Your task to perform on an android device: Open Google Chrome and click the shortcut for Amazon.com Image 0: 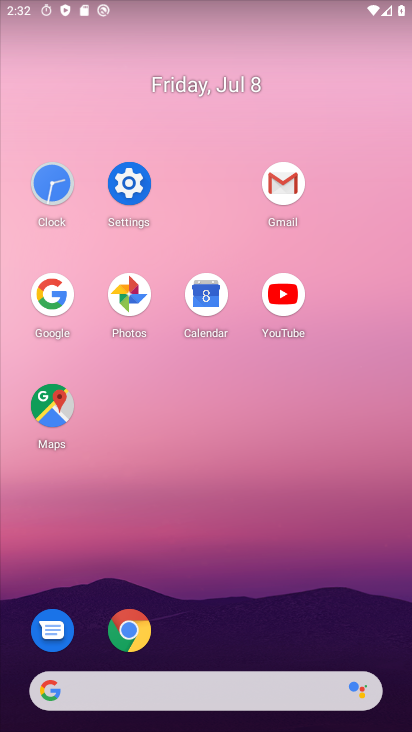
Step 0: click (117, 626)
Your task to perform on an android device: Open Google Chrome and click the shortcut for Amazon.com Image 1: 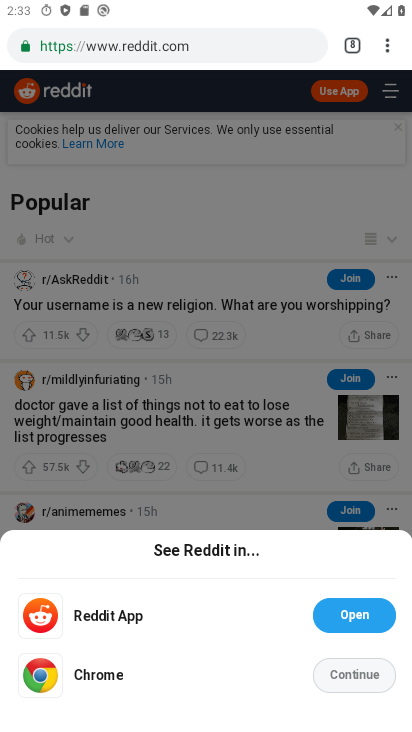
Step 1: click (352, 36)
Your task to perform on an android device: Open Google Chrome and click the shortcut for Amazon.com Image 2: 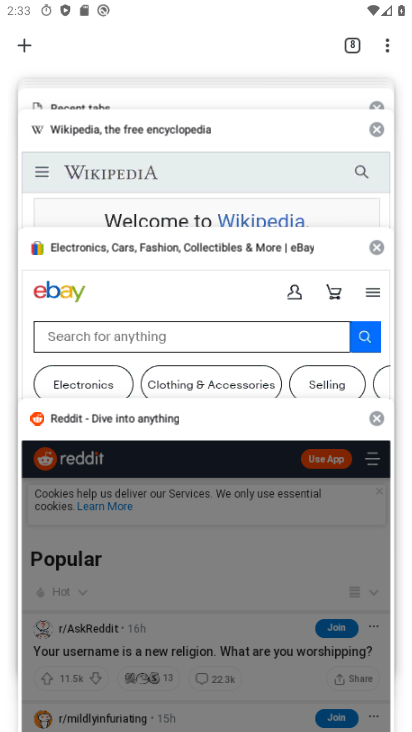
Step 2: drag from (222, 172) to (228, 485)
Your task to perform on an android device: Open Google Chrome and click the shortcut for Amazon.com Image 3: 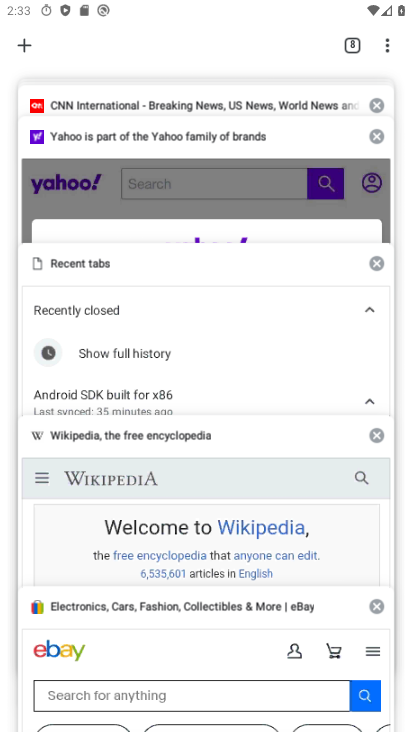
Step 3: drag from (154, 190) to (193, 462)
Your task to perform on an android device: Open Google Chrome and click the shortcut for Amazon.com Image 4: 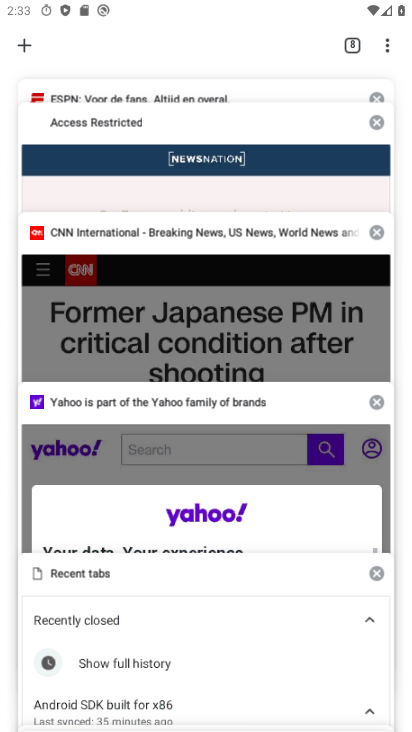
Step 4: drag from (133, 159) to (129, 375)
Your task to perform on an android device: Open Google Chrome and click the shortcut for Amazon.com Image 5: 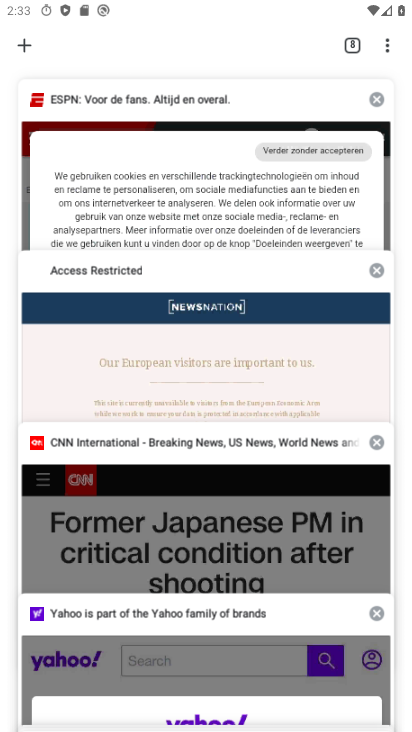
Step 5: click (28, 49)
Your task to perform on an android device: Open Google Chrome and click the shortcut for Amazon.com Image 6: 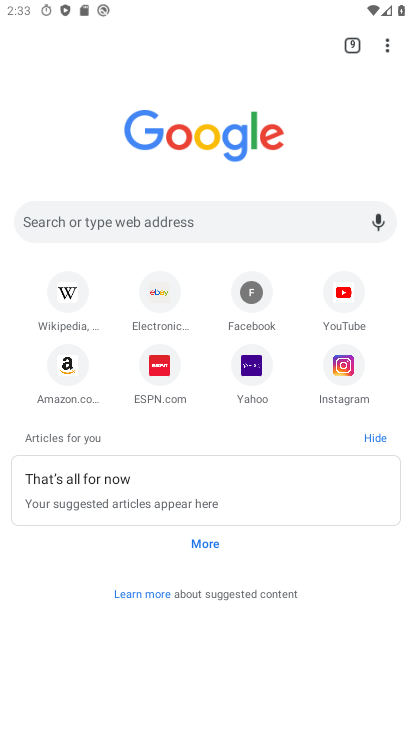
Step 6: click (64, 357)
Your task to perform on an android device: Open Google Chrome and click the shortcut for Amazon.com Image 7: 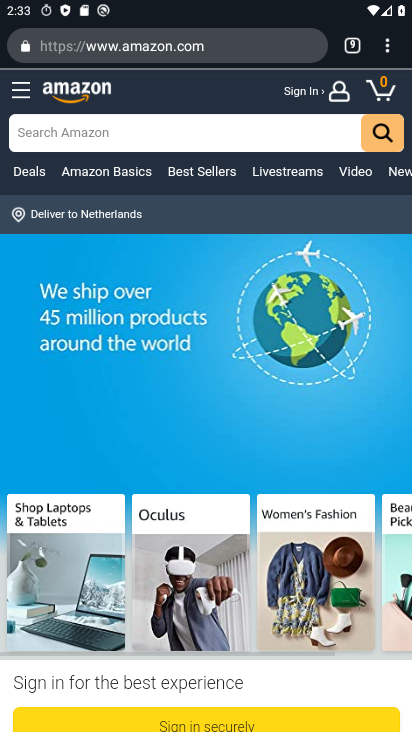
Step 7: task complete